Your task to perform on an android device: Open the calendar and show me this week's events? Image 0: 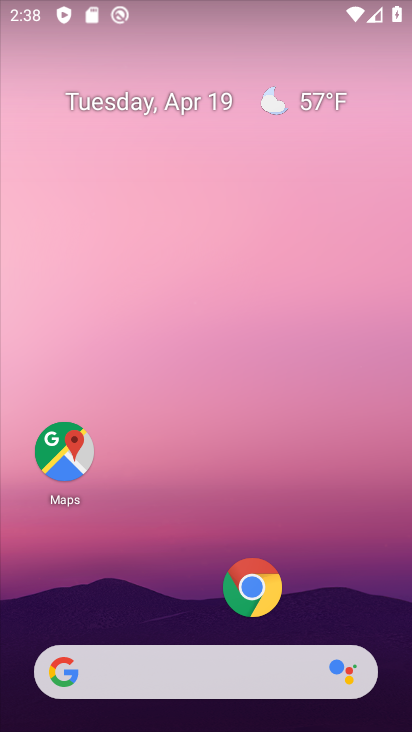
Step 0: drag from (174, 619) to (262, 115)
Your task to perform on an android device: Open the calendar and show me this week's events? Image 1: 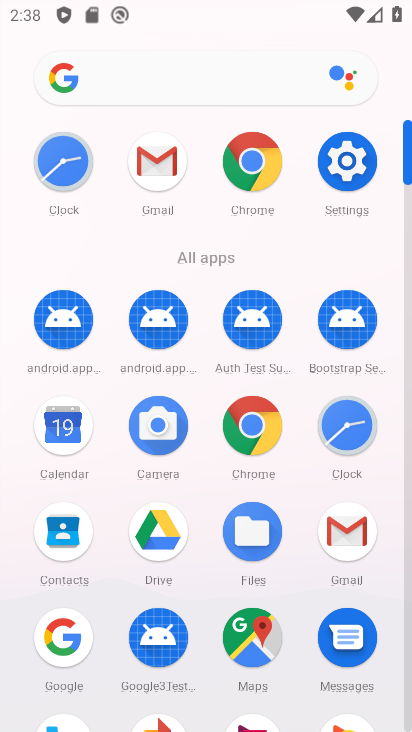
Step 1: click (58, 431)
Your task to perform on an android device: Open the calendar and show me this week's events? Image 2: 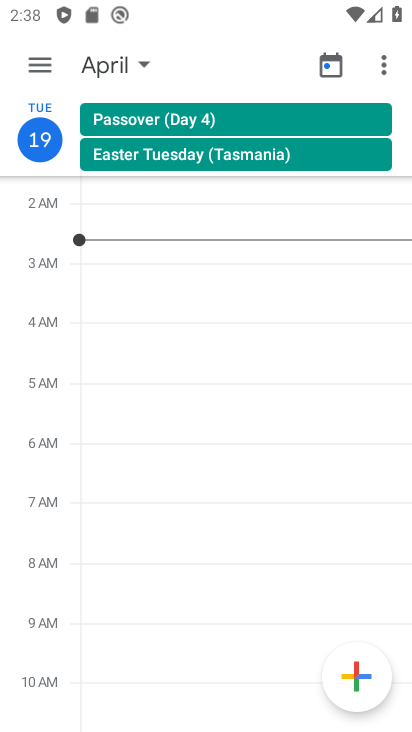
Step 2: click (46, 63)
Your task to perform on an android device: Open the calendar and show me this week's events? Image 3: 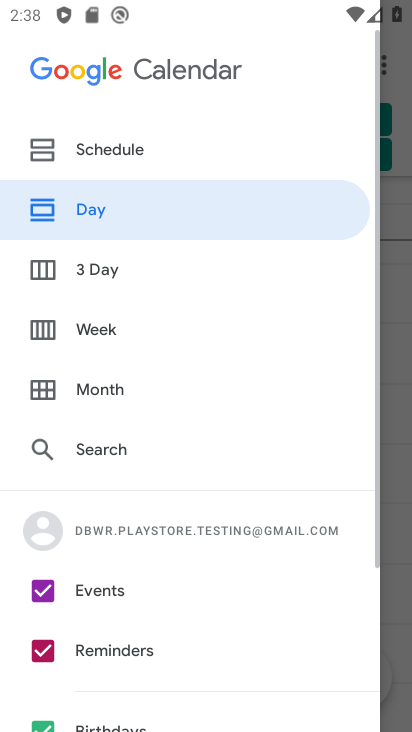
Step 3: drag from (38, 574) to (82, 358)
Your task to perform on an android device: Open the calendar and show me this week's events? Image 4: 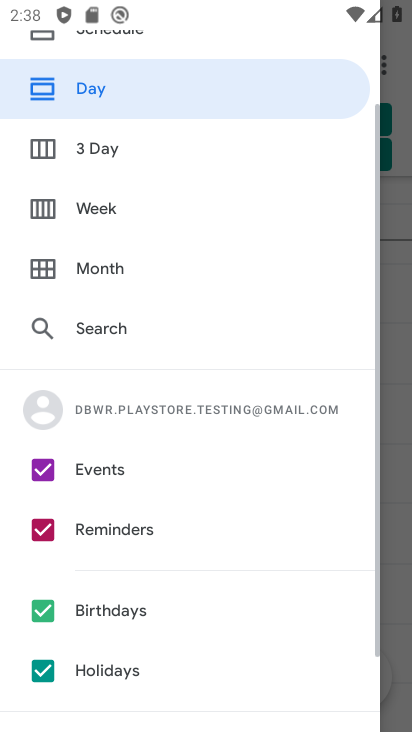
Step 4: click (35, 517)
Your task to perform on an android device: Open the calendar and show me this week's events? Image 5: 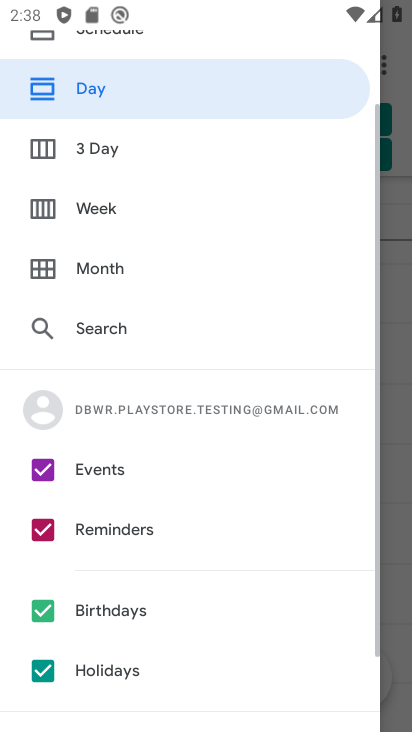
Step 5: click (43, 607)
Your task to perform on an android device: Open the calendar and show me this week's events? Image 6: 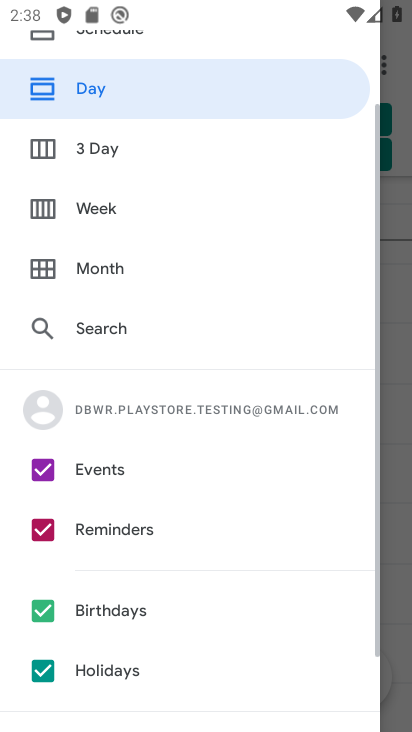
Step 6: click (37, 671)
Your task to perform on an android device: Open the calendar and show me this week's events? Image 7: 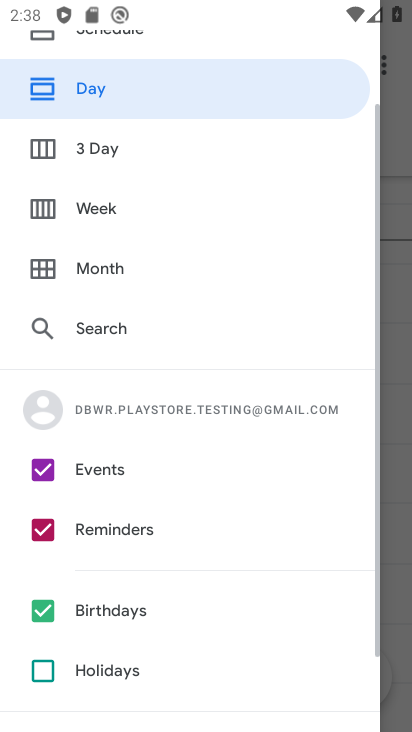
Step 7: click (46, 615)
Your task to perform on an android device: Open the calendar and show me this week's events? Image 8: 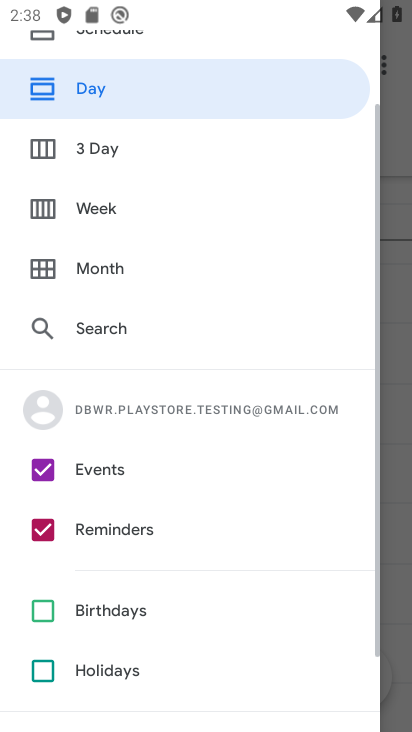
Step 8: click (44, 524)
Your task to perform on an android device: Open the calendar and show me this week's events? Image 9: 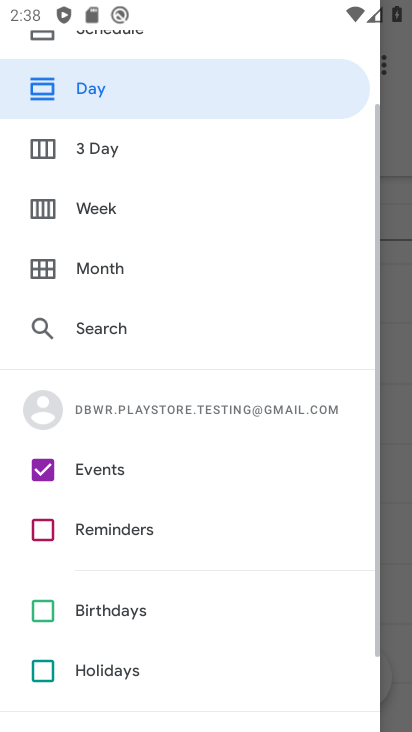
Step 9: drag from (199, 614) to (212, 499)
Your task to perform on an android device: Open the calendar and show me this week's events? Image 10: 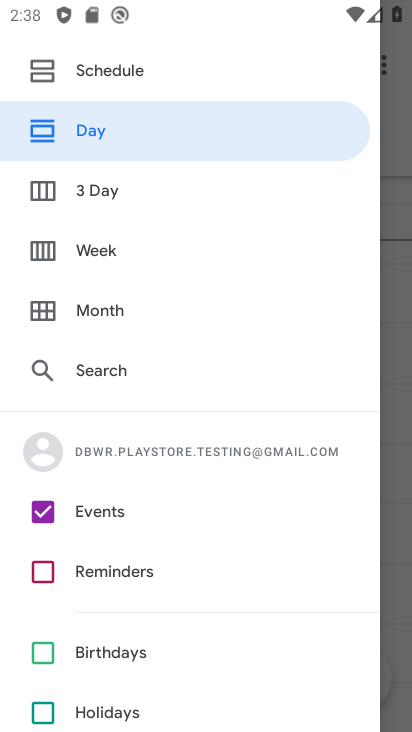
Step 10: click (100, 259)
Your task to perform on an android device: Open the calendar and show me this week's events? Image 11: 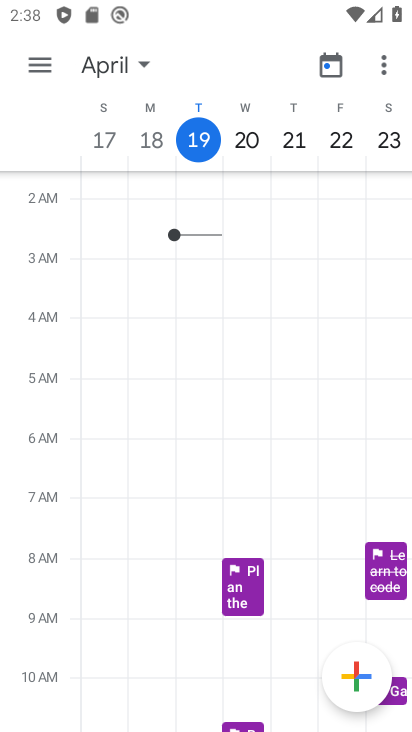
Step 11: task complete